Your task to perform on an android device: What's the weather today? Image 0: 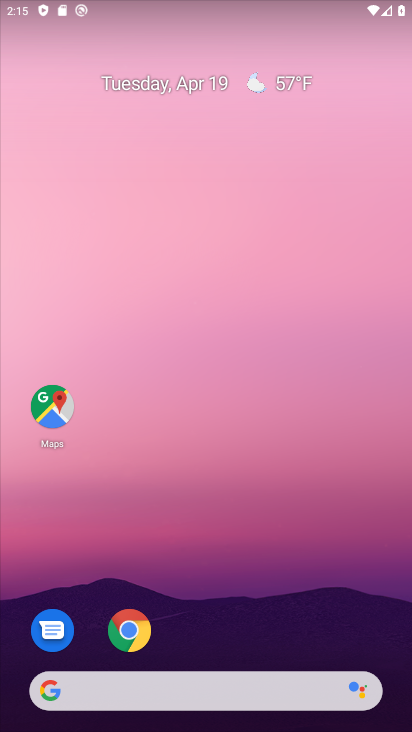
Step 0: drag from (235, 597) to (229, 58)
Your task to perform on an android device: What's the weather today? Image 1: 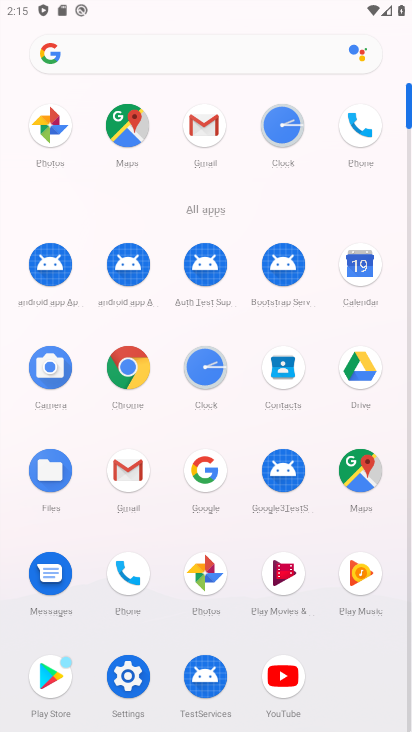
Step 1: click (205, 472)
Your task to perform on an android device: What's the weather today? Image 2: 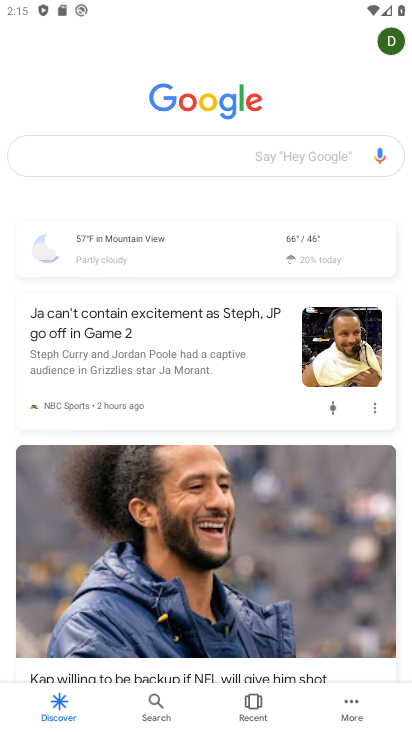
Step 2: click (299, 244)
Your task to perform on an android device: What's the weather today? Image 3: 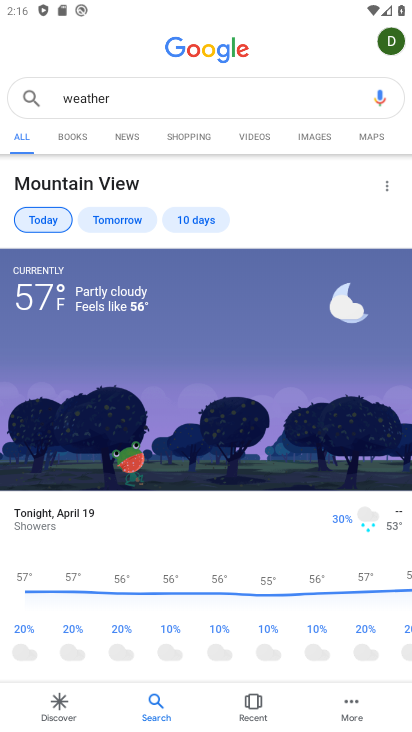
Step 3: task complete